Your task to perform on an android device: Open Youtube and go to "Your channel" Image 0: 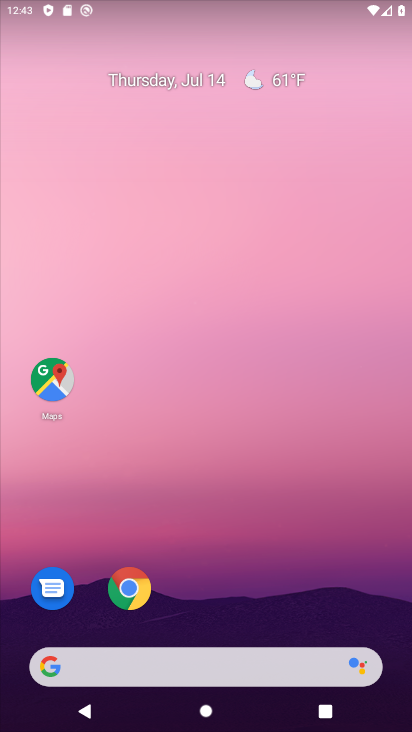
Step 0: drag from (225, 595) to (242, 404)
Your task to perform on an android device: Open Youtube and go to "Your channel" Image 1: 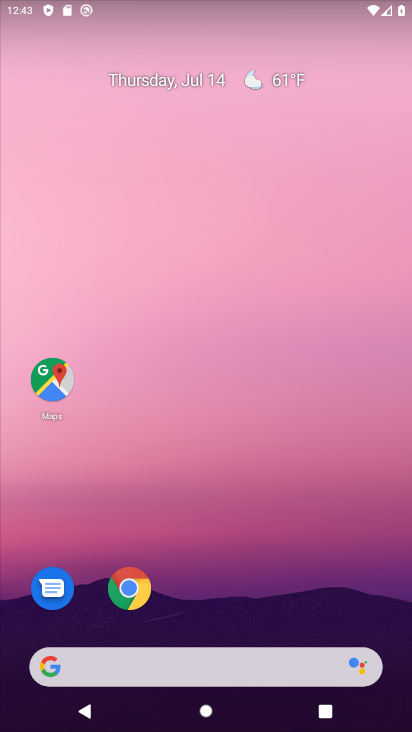
Step 1: drag from (183, 638) to (200, 489)
Your task to perform on an android device: Open Youtube and go to "Your channel" Image 2: 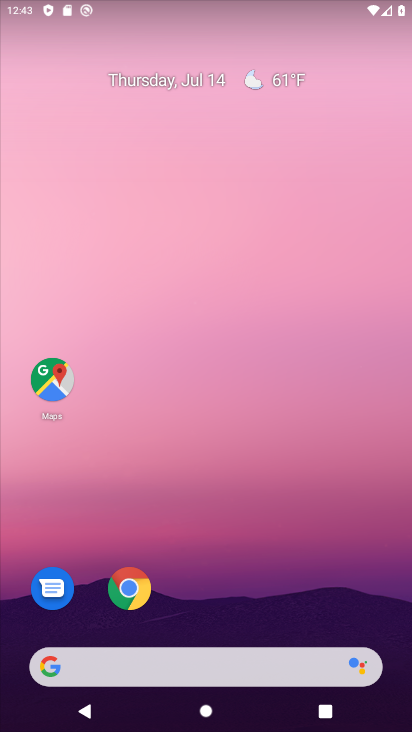
Step 2: drag from (221, 556) to (221, 177)
Your task to perform on an android device: Open Youtube and go to "Your channel" Image 3: 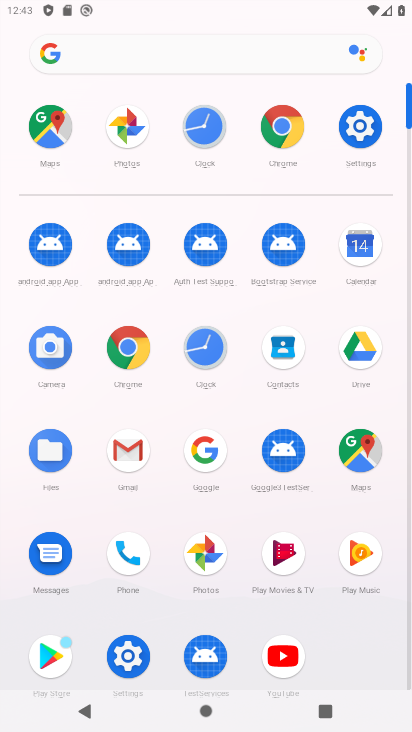
Step 3: click (272, 658)
Your task to perform on an android device: Open Youtube and go to "Your channel" Image 4: 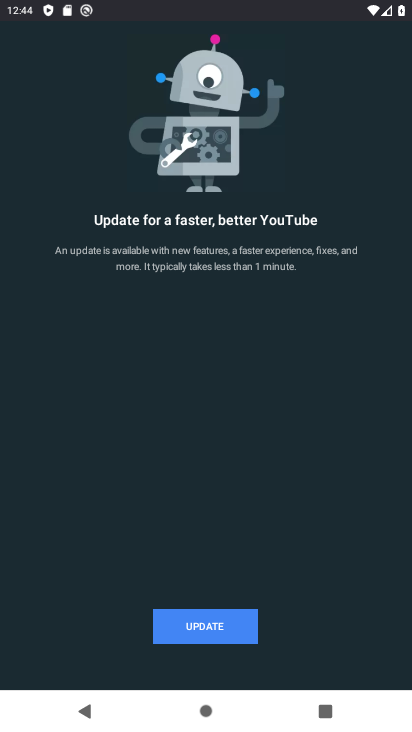
Step 4: task complete